Your task to perform on an android device: Go to CNN.com Image 0: 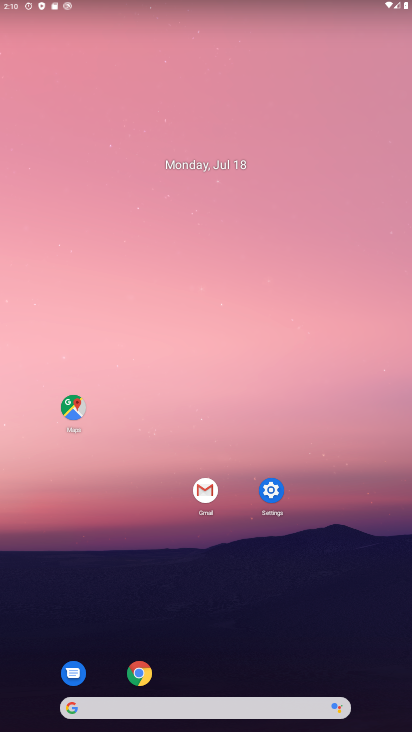
Step 0: press home button
Your task to perform on an android device: Go to CNN.com Image 1: 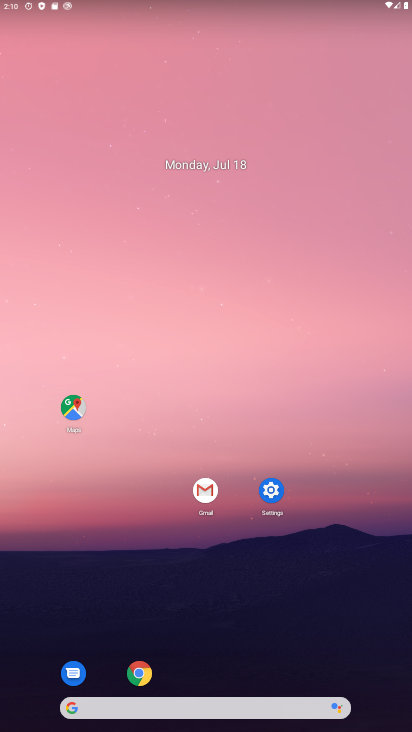
Step 1: click (139, 673)
Your task to perform on an android device: Go to CNN.com Image 2: 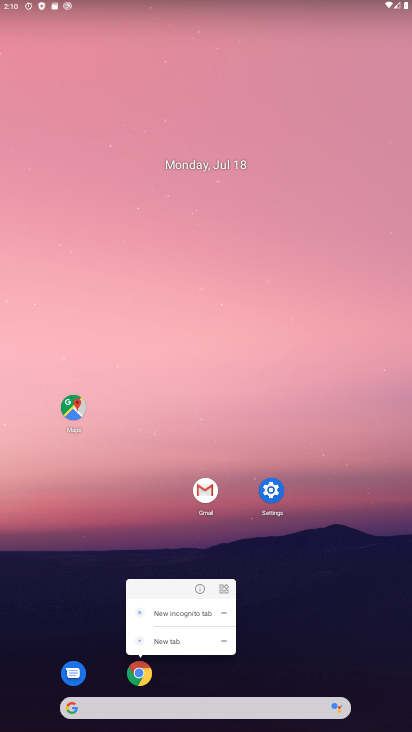
Step 2: click (139, 677)
Your task to perform on an android device: Go to CNN.com Image 3: 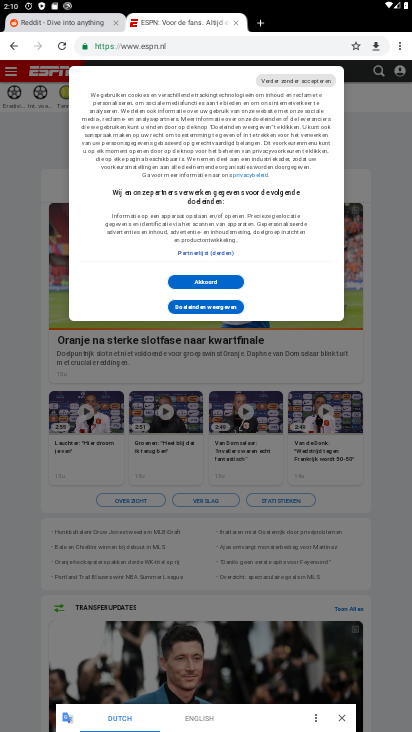
Step 3: click (139, 45)
Your task to perform on an android device: Go to CNN.com Image 4: 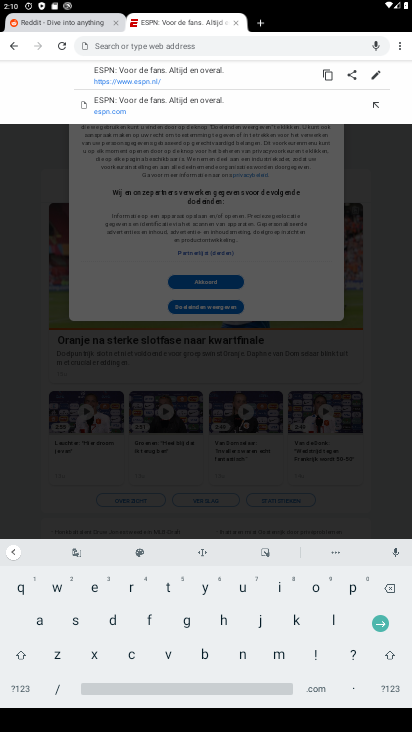
Step 4: click (128, 651)
Your task to perform on an android device: Go to CNN.com Image 5: 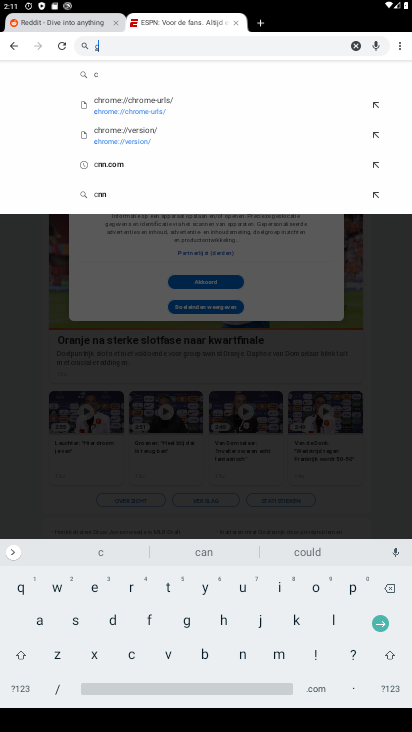
Step 5: click (246, 656)
Your task to perform on an android device: Go to CNN.com Image 6: 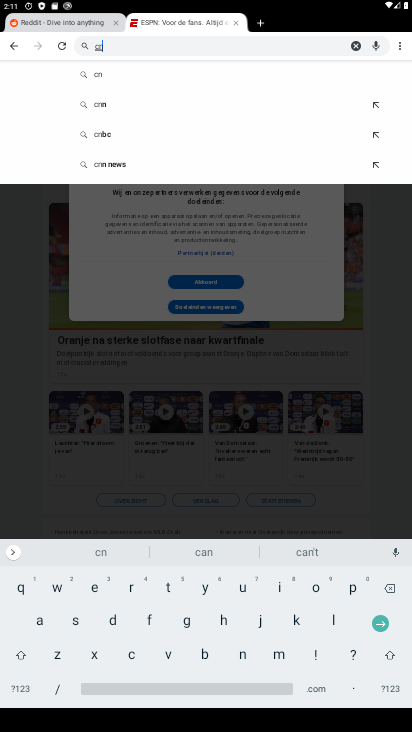
Step 6: click (108, 106)
Your task to perform on an android device: Go to CNN.com Image 7: 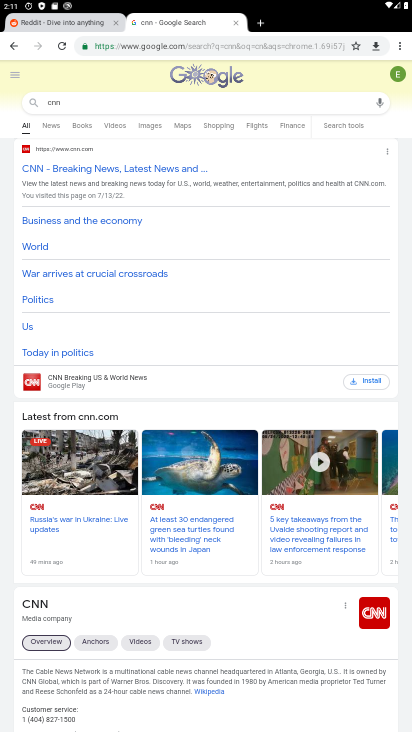
Step 7: click (57, 170)
Your task to perform on an android device: Go to CNN.com Image 8: 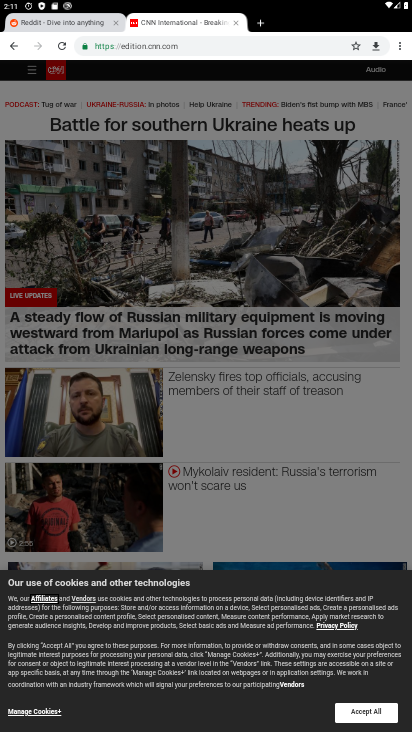
Step 8: task complete